Your task to perform on an android device: Search for Mexican restaurants on Maps Image 0: 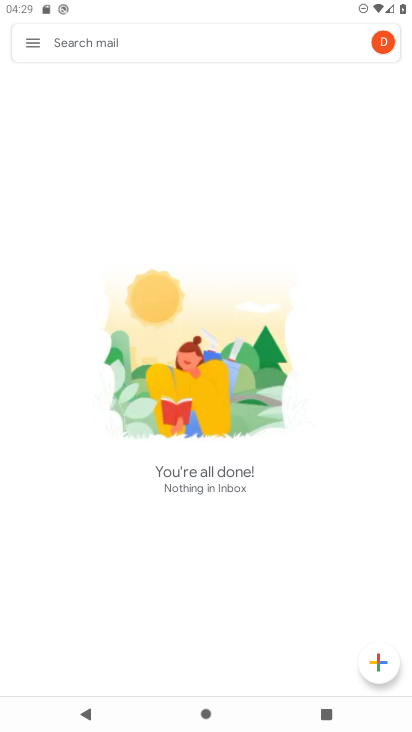
Step 0: press home button
Your task to perform on an android device: Search for Mexican restaurants on Maps Image 1: 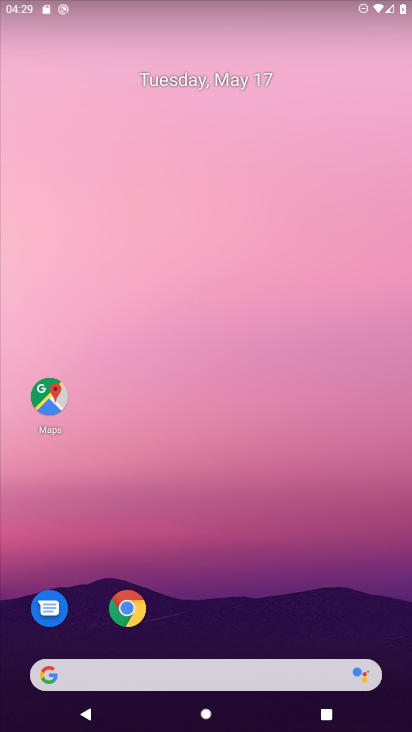
Step 1: click (44, 406)
Your task to perform on an android device: Search for Mexican restaurants on Maps Image 2: 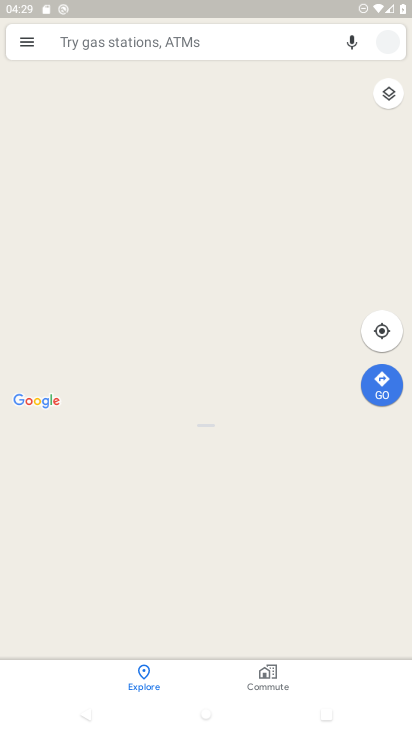
Step 2: click (102, 42)
Your task to perform on an android device: Search for Mexican restaurants on Maps Image 3: 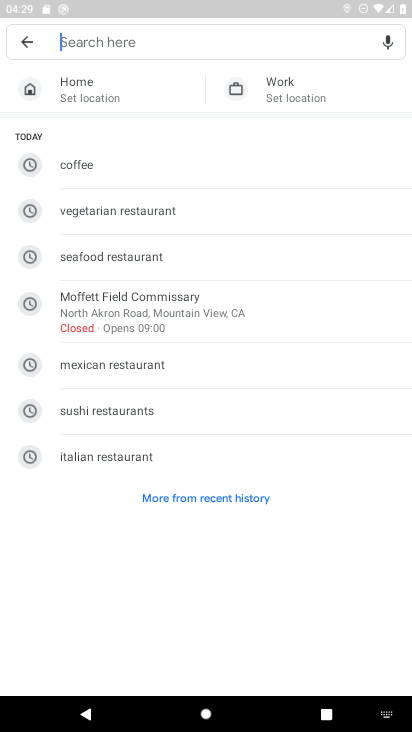
Step 3: click (101, 366)
Your task to perform on an android device: Search for Mexican restaurants on Maps Image 4: 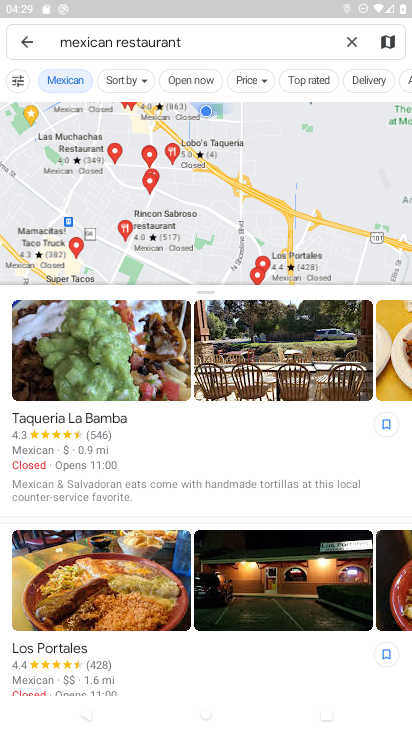
Step 4: task complete